Your task to perform on an android device: see creations saved in the google photos Image 0: 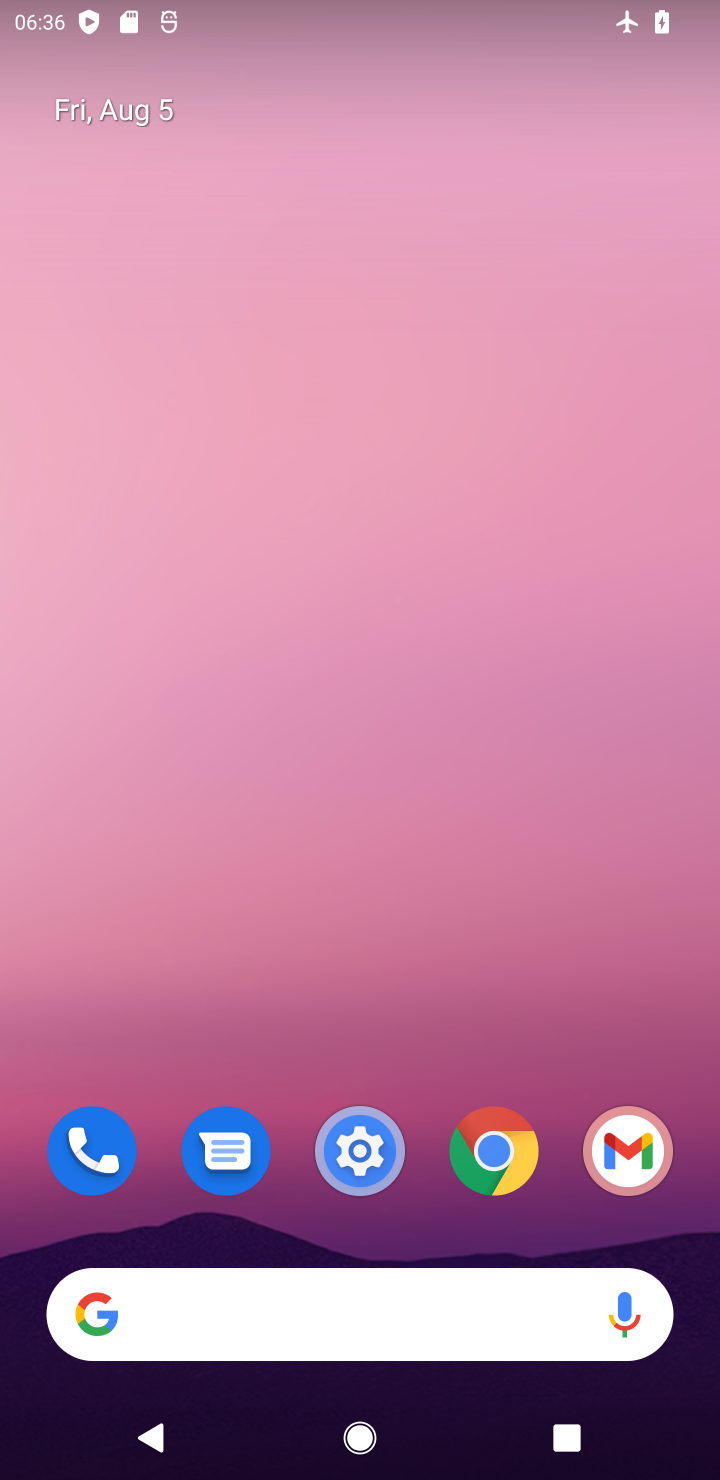
Step 0: drag from (428, 1248) to (639, 929)
Your task to perform on an android device: see creations saved in the google photos Image 1: 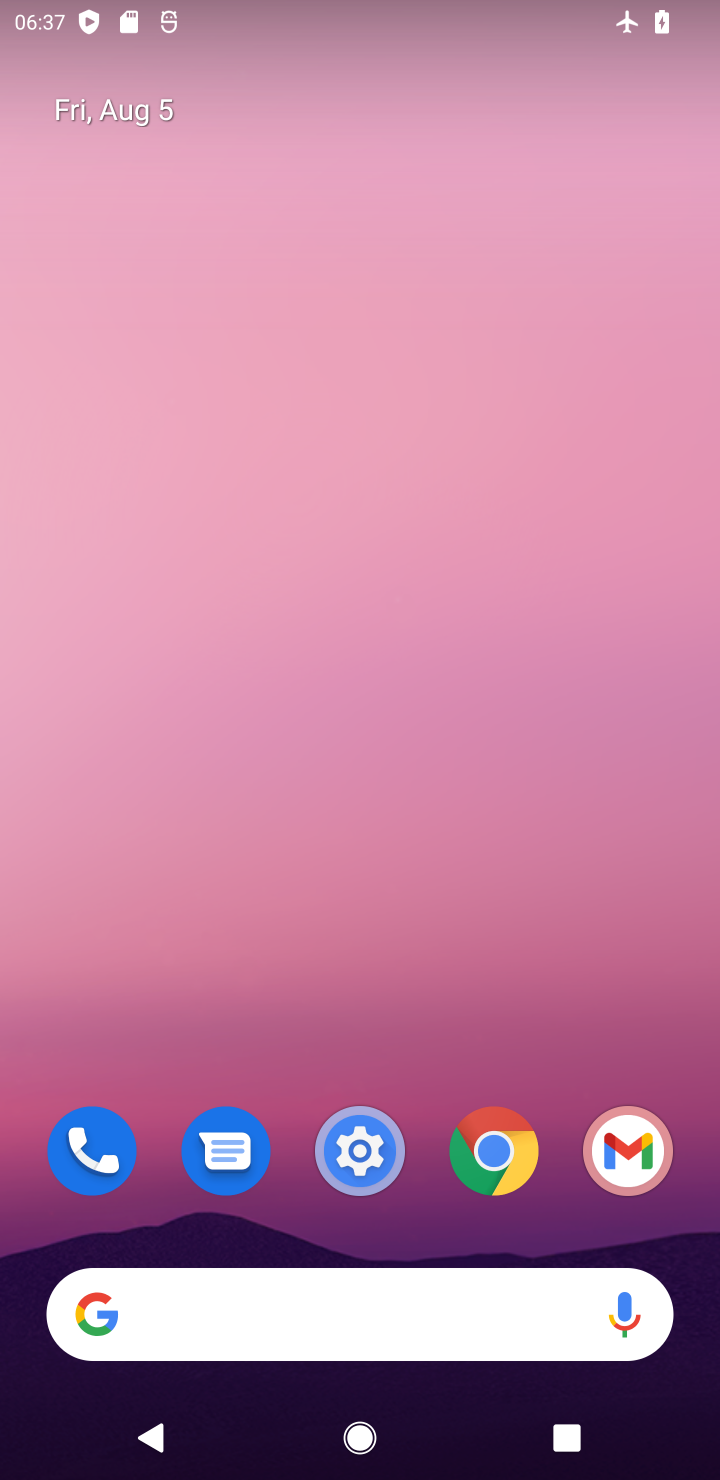
Step 1: drag from (373, 1211) to (307, 19)
Your task to perform on an android device: see creations saved in the google photos Image 2: 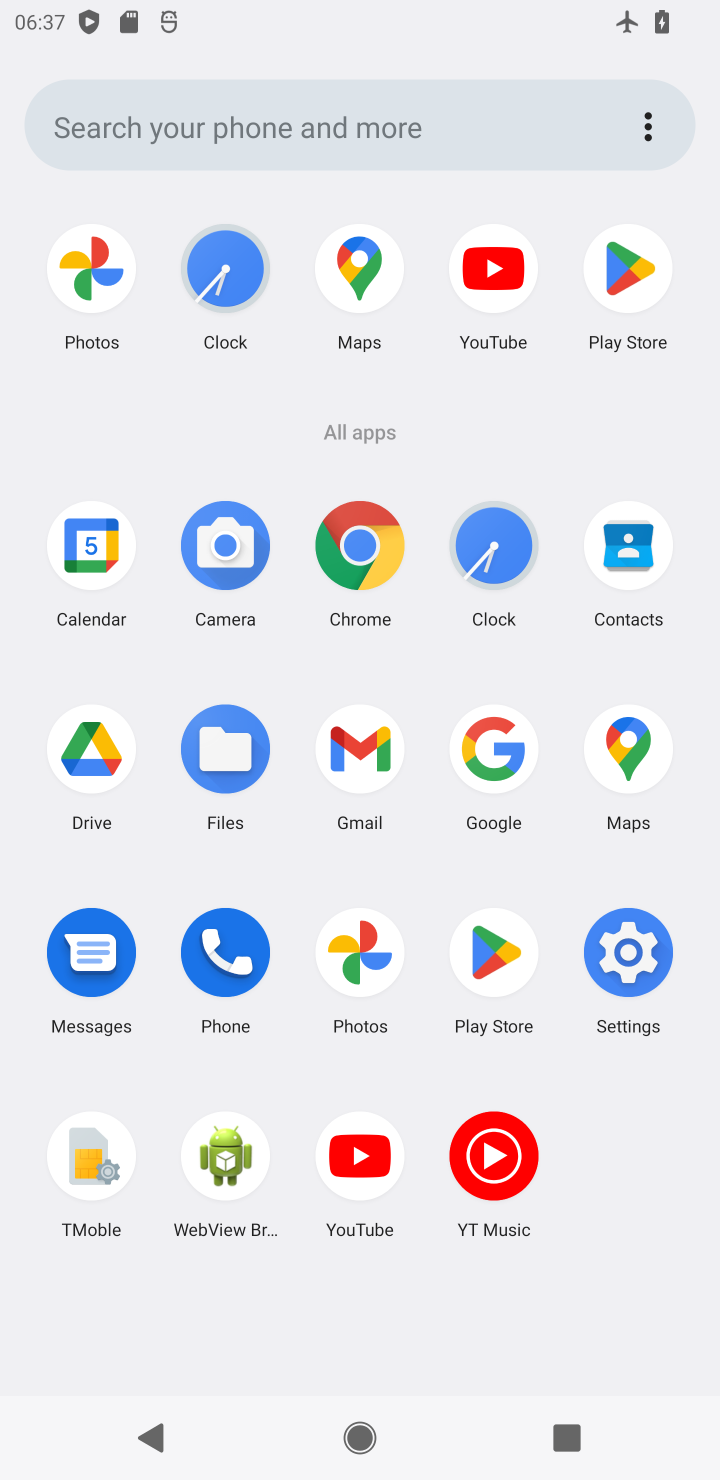
Step 2: click (381, 953)
Your task to perform on an android device: see creations saved in the google photos Image 3: 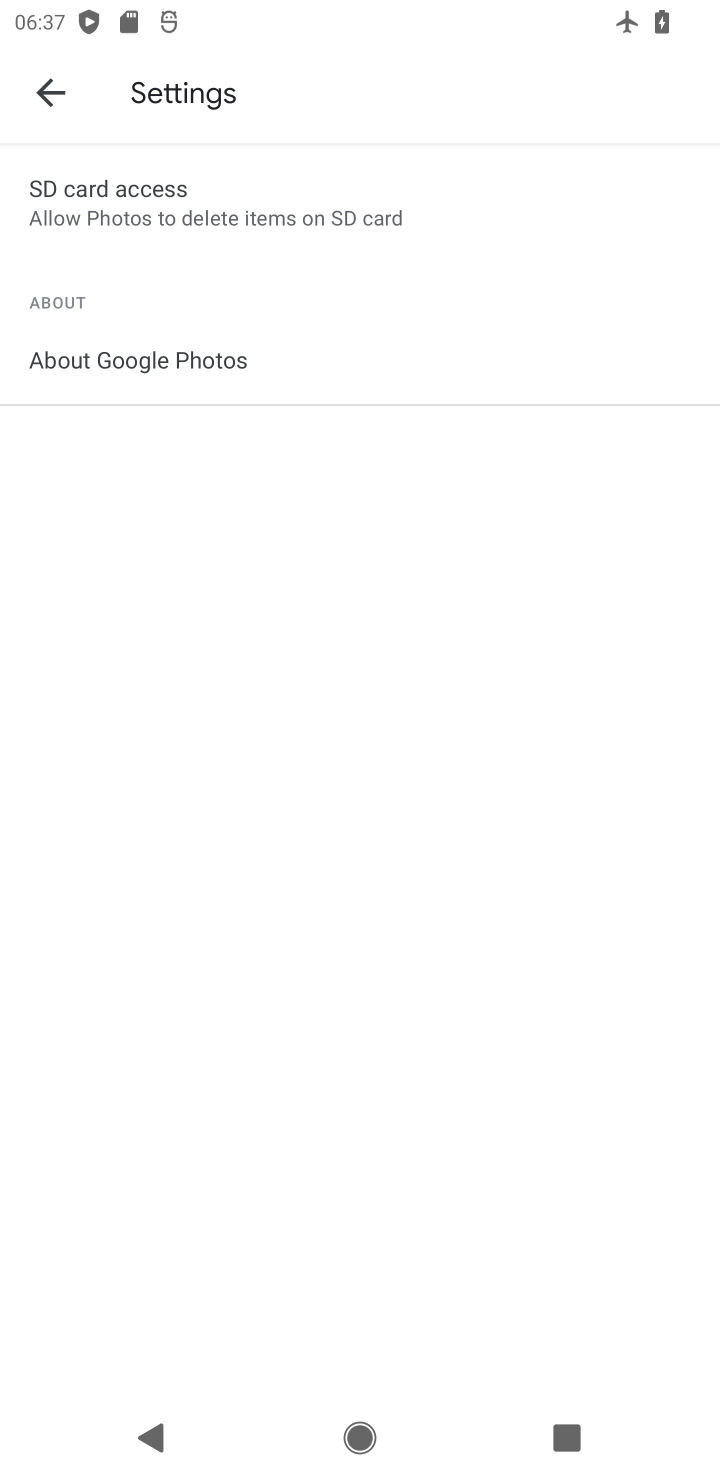
Step 3: click (42, 87)
Your task to perform on an android device: see creations saved in the google photos Image 4: 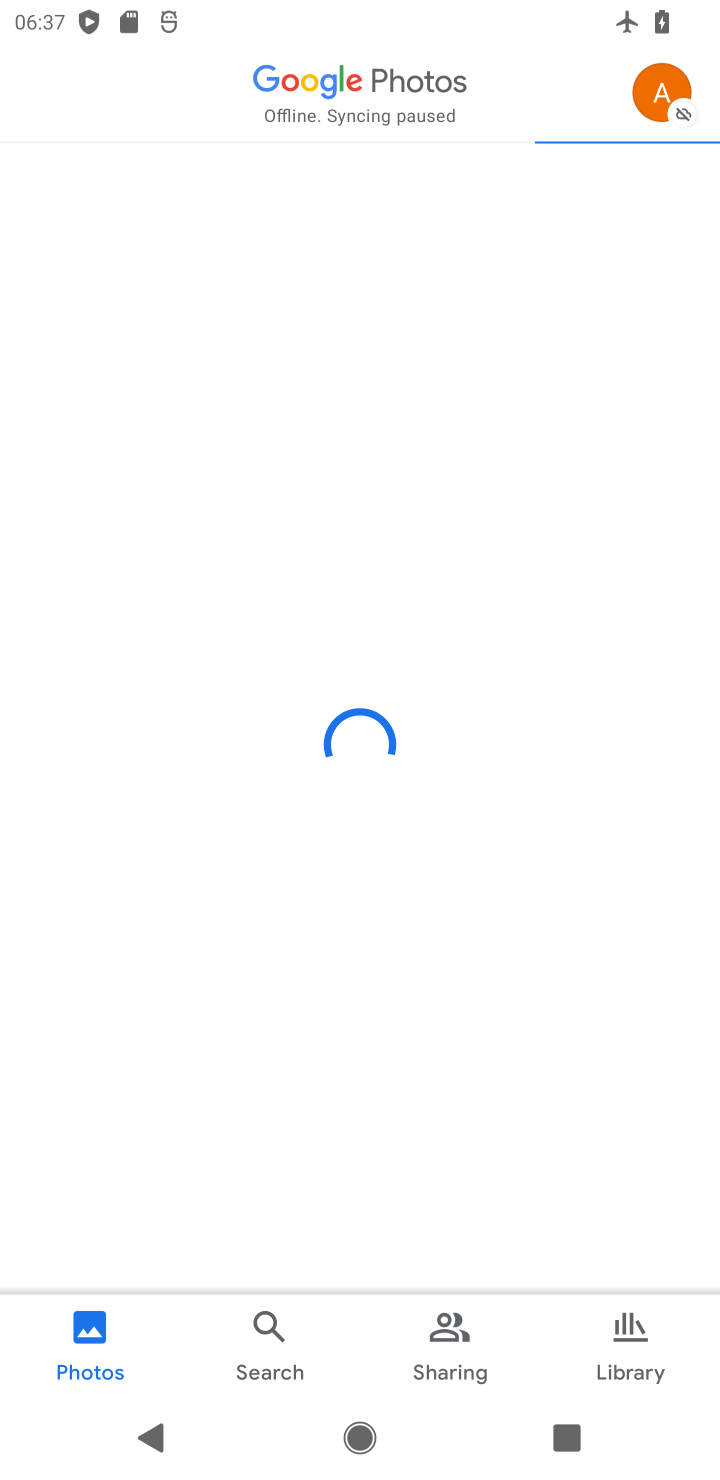
Step 4: click (262, 1322)
Your task to perform on an android device: see creations saved in the google photos Image 5: 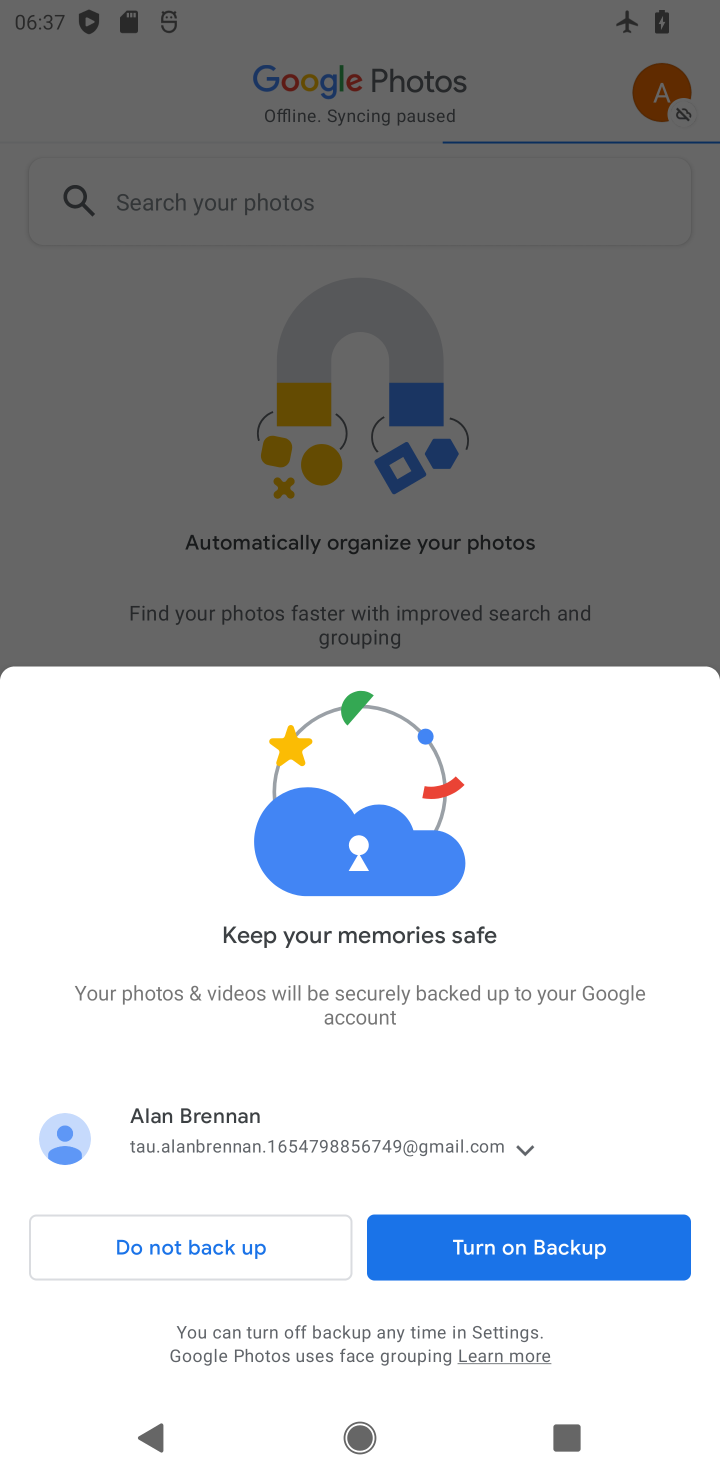
Step 5: click (321, 197)
Your task to perform on an android device: see creations saved in the google photos Image 6: 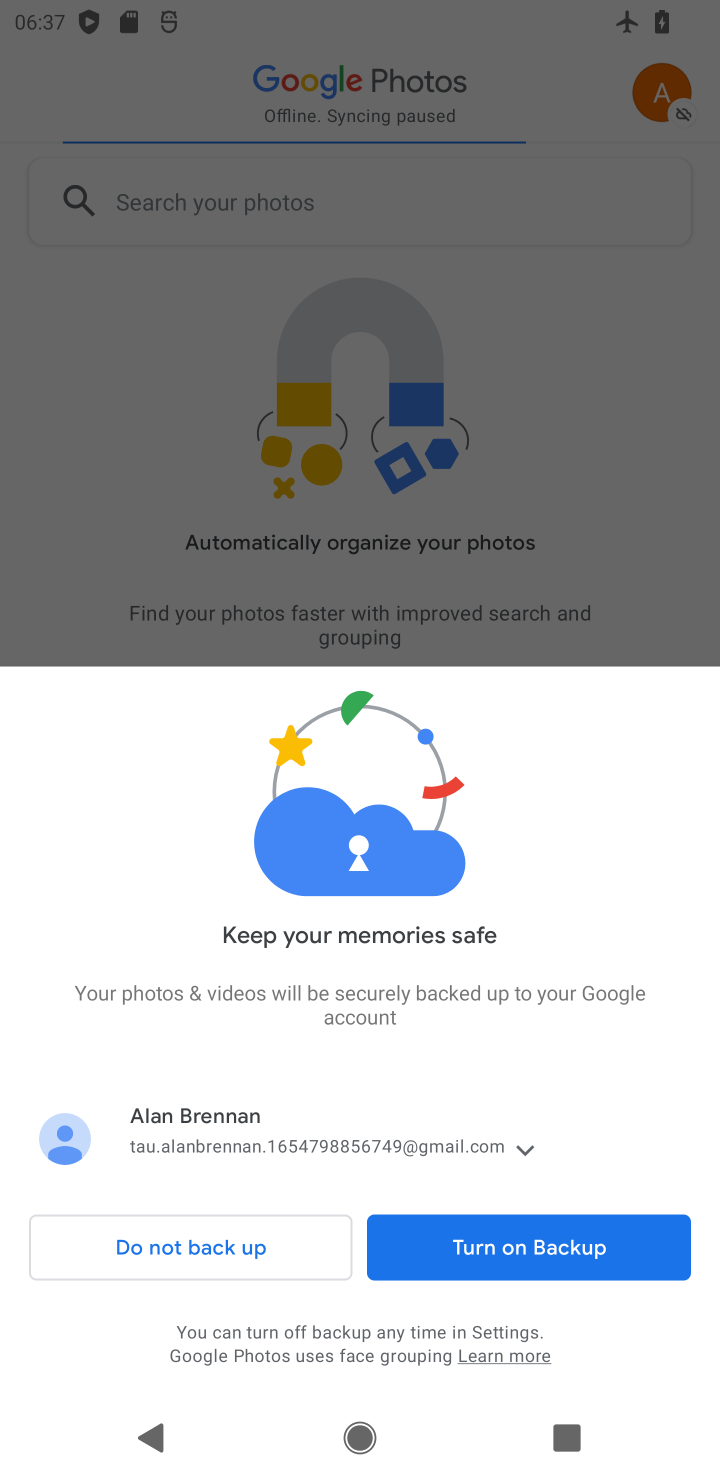
Step 6: click (566, 1250)
Your task to perform on an android device: see creations saved in the google photos Image 7: 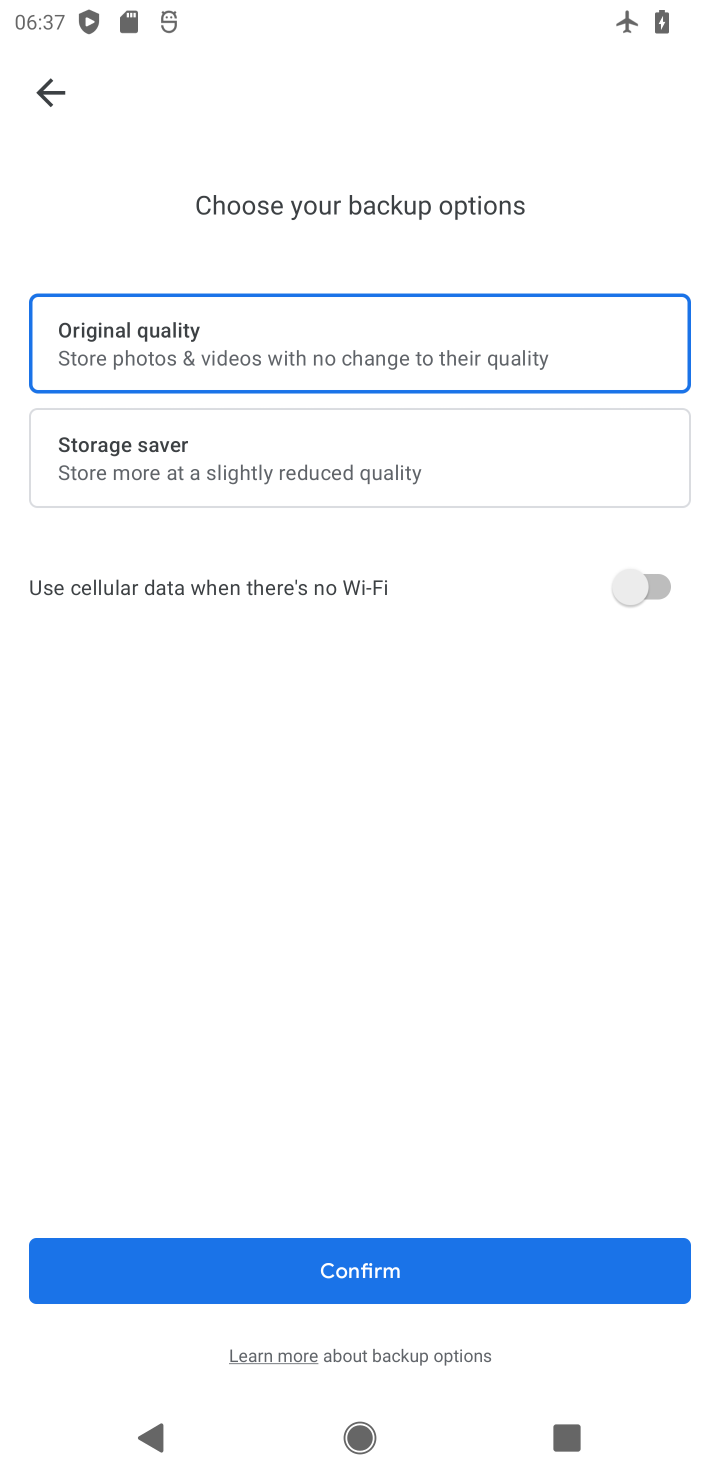
Step 7: click (370, 1242)
Your task to perform on an android device: see creations saved in the google photos Image 8: 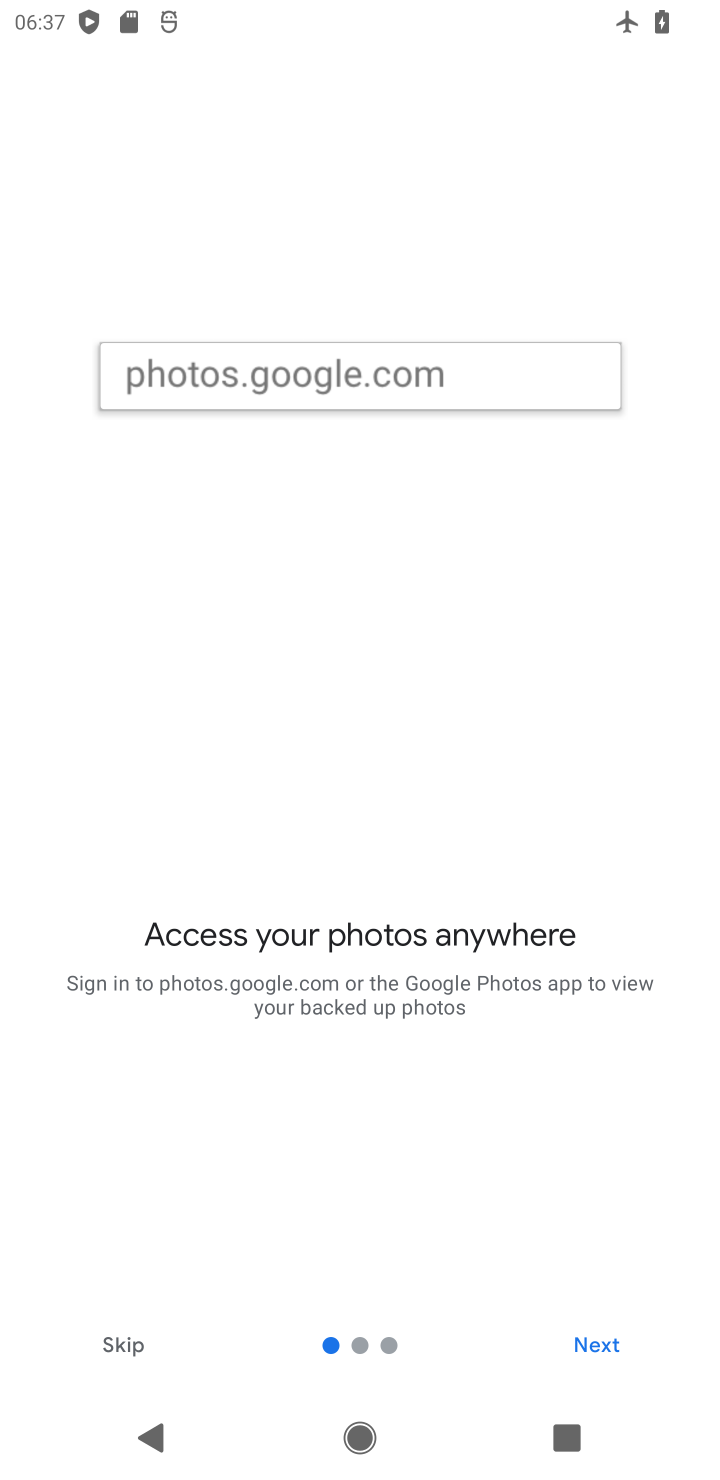
Step 8: click (138, 1336)
Your task to perform on an android device: see creations saved in the google photos Image 9: 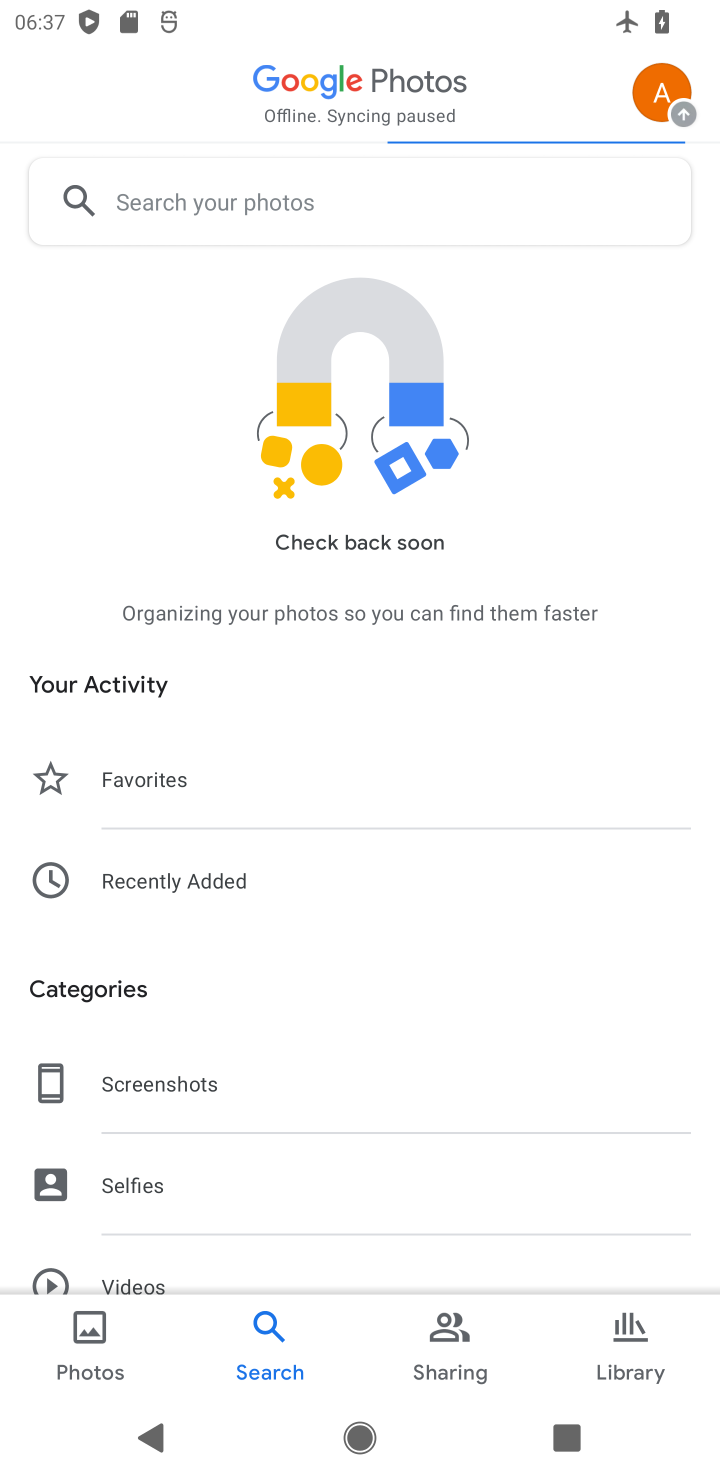
Step 9: click (308, 198)
Your task to perform on an android device: see creations saved in the google photos Image 10: 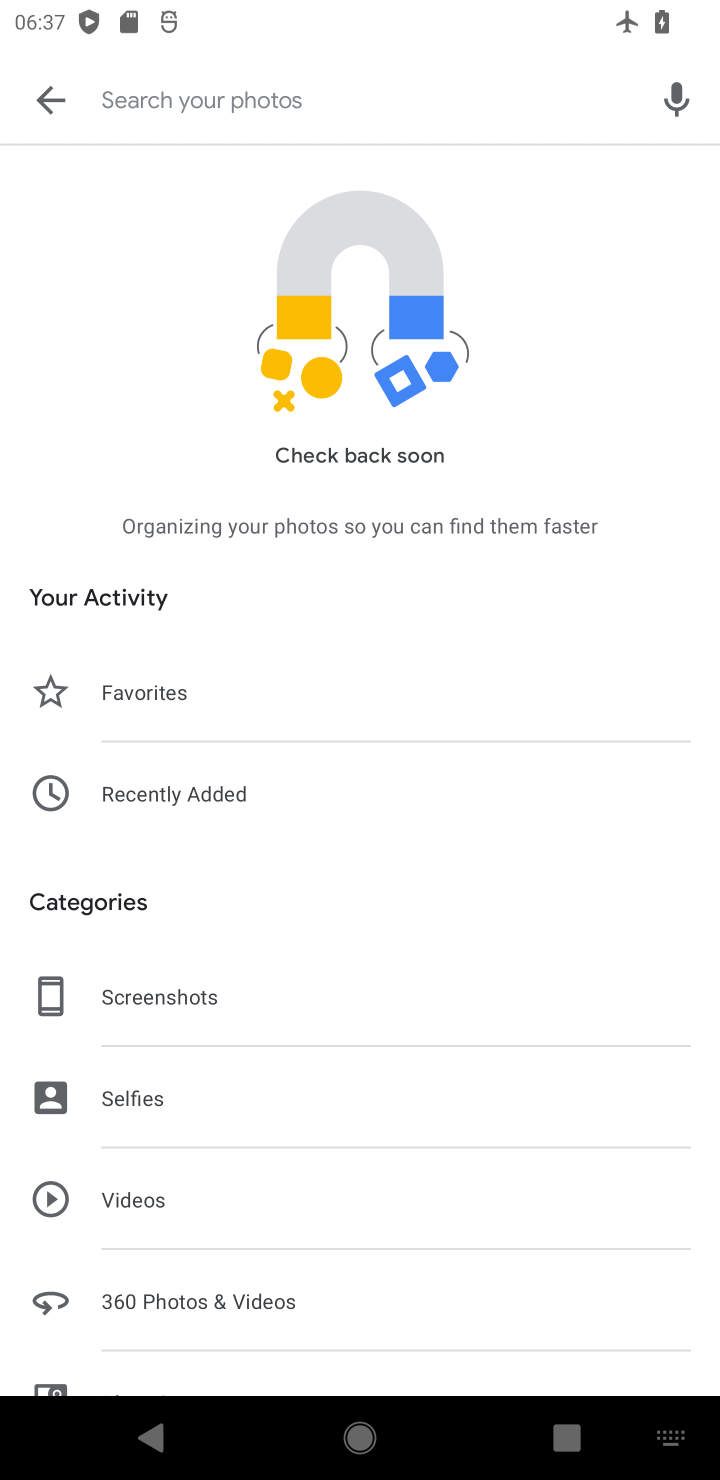
Step 10: drag from (228, 1120) to (221, 394)
Your task to perform on an android device: see creations saved in the google photos Image 11: 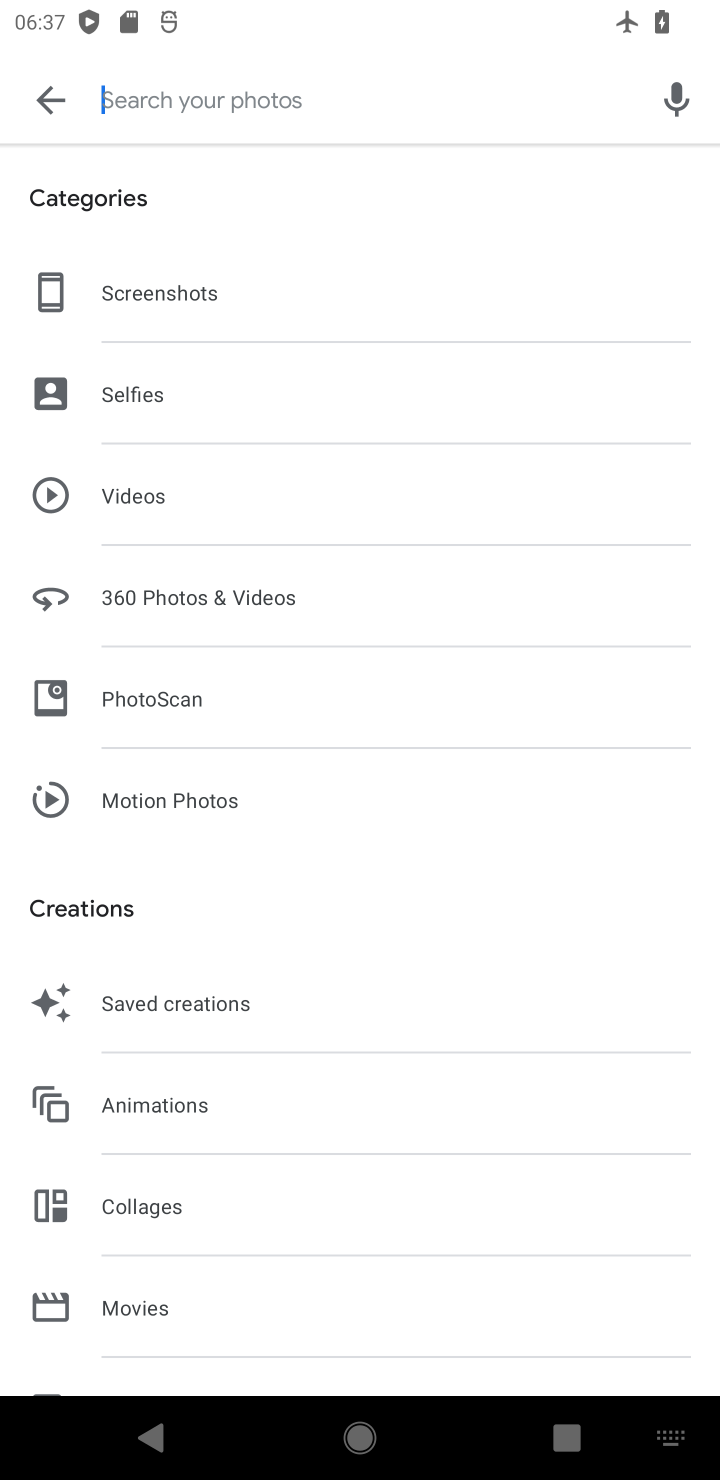
Step 11: click (242, 1009)
Your task to perform on an android device: see creations saved in the google photos Image 12: 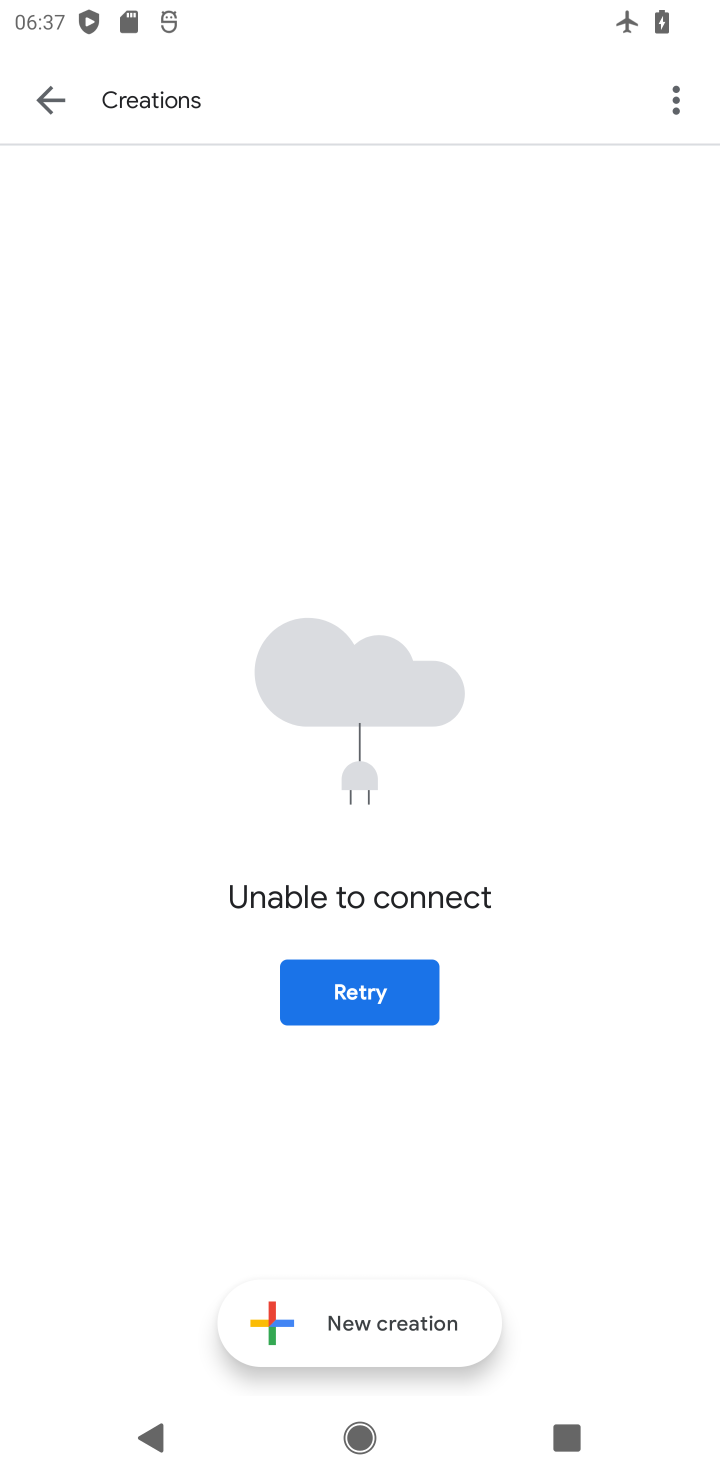
Step 12: task complete